Your task to perform on an android device: Go to settings Image 0: 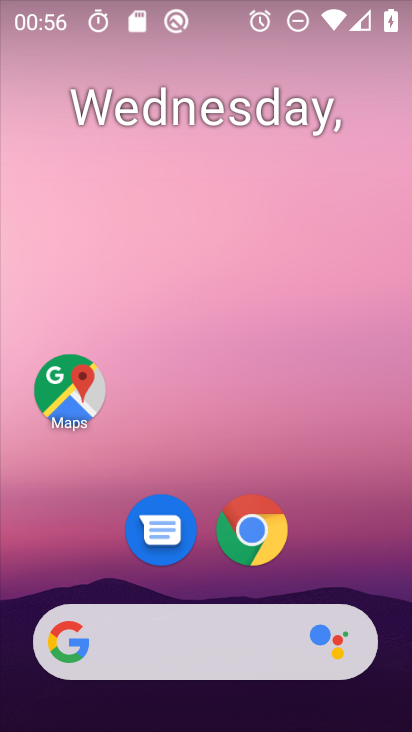
Step 0: drag from (276, 678) to (299, 79)
Your task to perform on an android device: Go to settings Image 1: 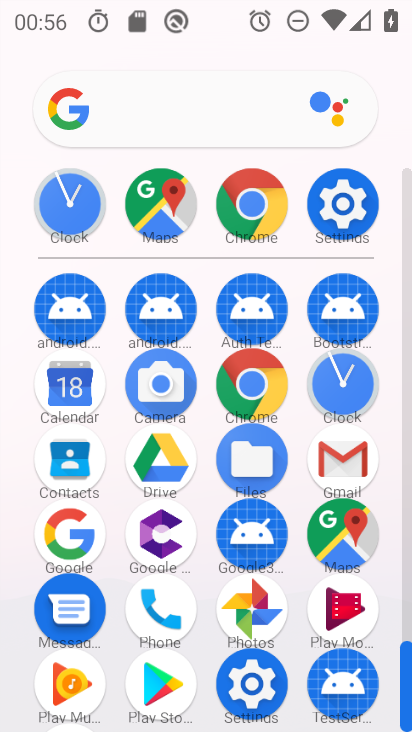
Step 1: click (359, 215)
Your task to perform on an android device: Go to settings Image 2: 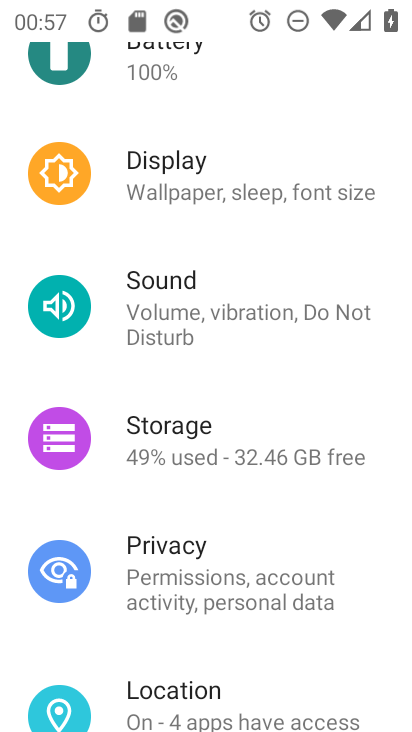
Step 2: task complete